Your task to perform on an android device: Open Google Maps and go to "Timeline" Image 0: 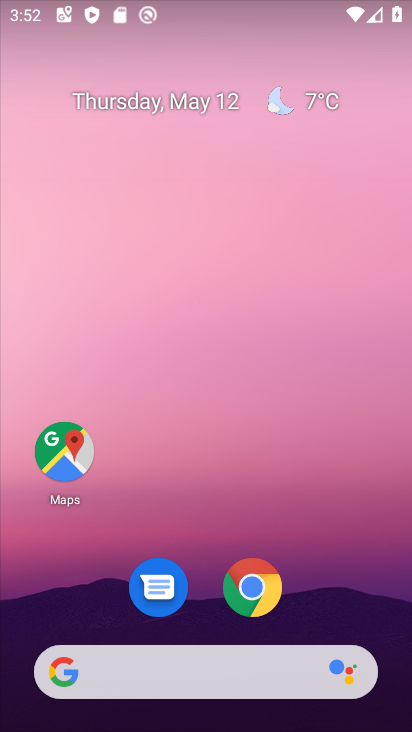
Step 0: click (55, 459)
Your task to perform on an android device: Open Google Maps and go to "Timeline" Image 1: 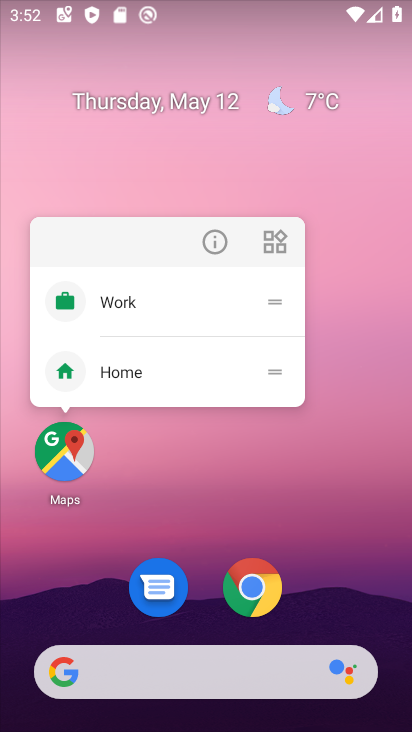
Step 1: click (62, 458)
Your task to perform on an android device: Open Google Maps and go to "Timeline" Image 2: 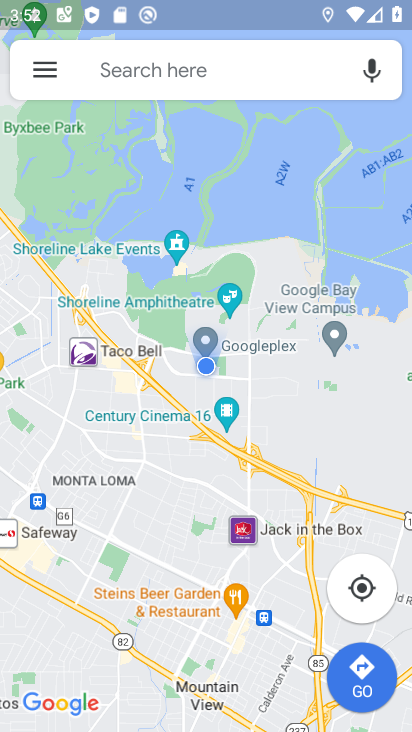
Step 2: drag from (62, 429) to (35, 75)
Your task to perform on an android device: Open Google Maps and go to "Timeline" Image 3: 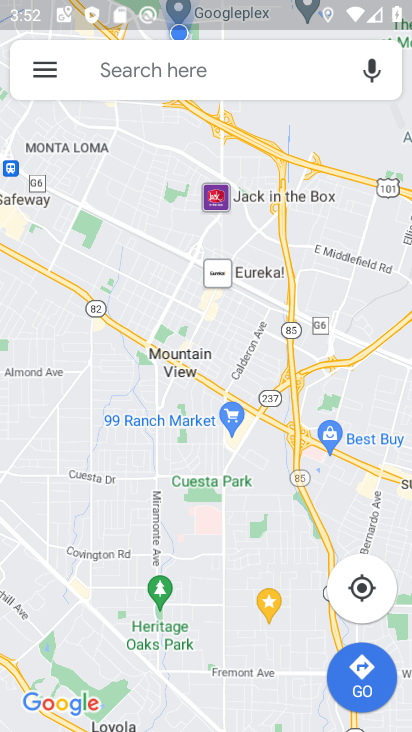
Step 3: click (35, 75)
Your task to perform on an android device: Open Google Maps and go to "Timeline" Image 4: 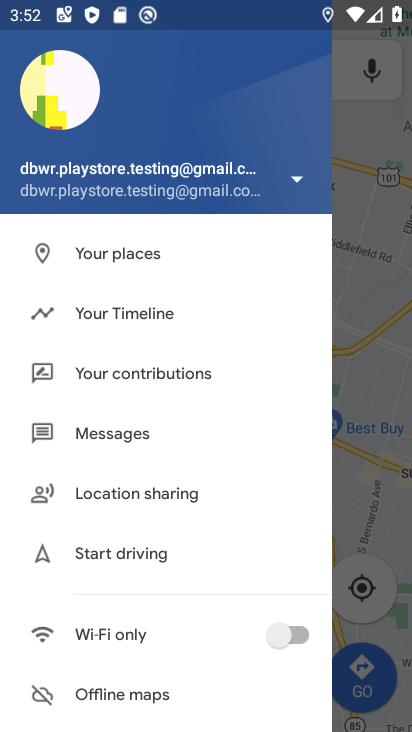
Step 4: click (126, 320)
Your task to perform on an android device: Open Google Maps and go to "Timeline" Image 5: 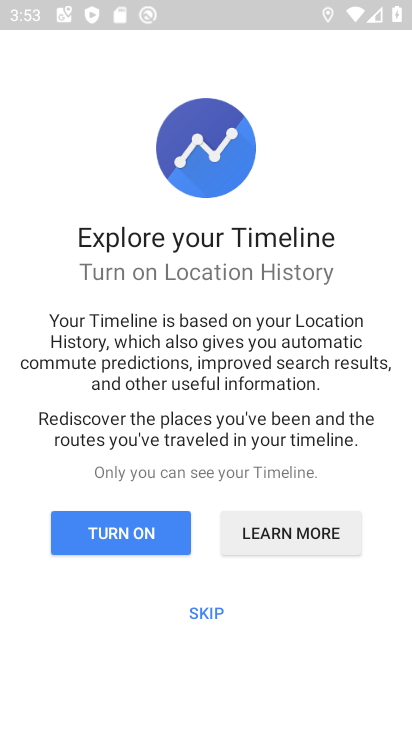
Step 5: click (210, 610)
Your task to perform on an android device: Open Google Maps and go to "Timeline" Image 6: 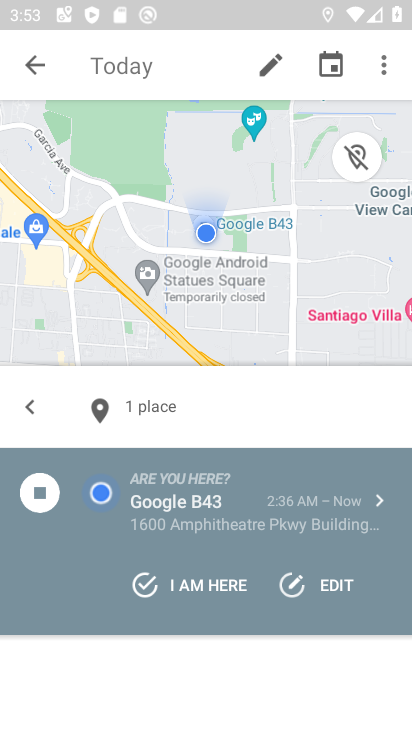
Step 6: task complete